Your task to perform on an android device: Open battery settings Image 0: 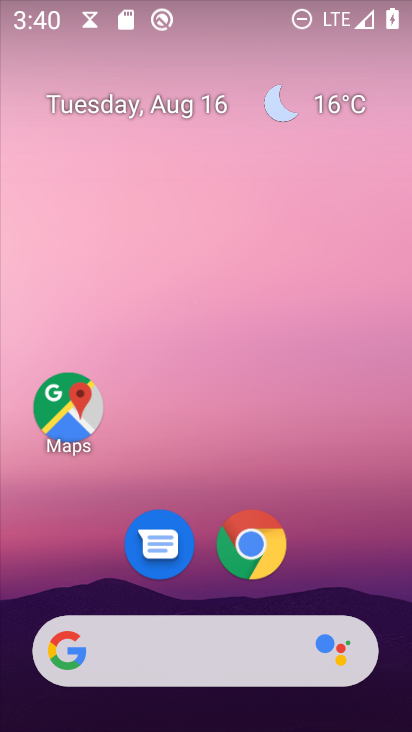
Step 0: drag from (206, 657) to (222, 119)
Your task to perform on an android device: Open battery settings Image 1: 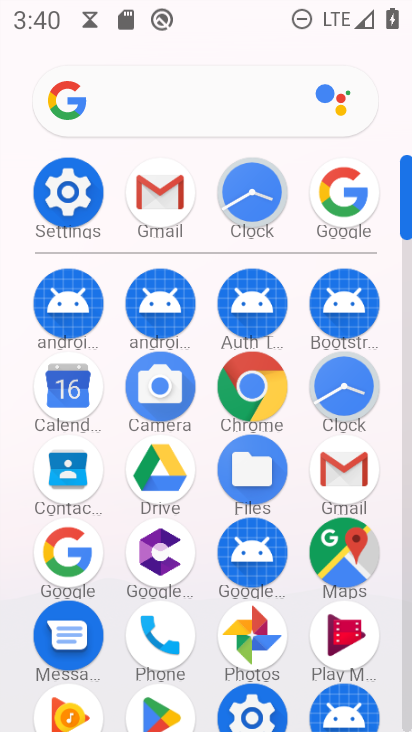
Step 1: click (66, 194)
Your task to perform on an android device: Open battery settings Image 2: 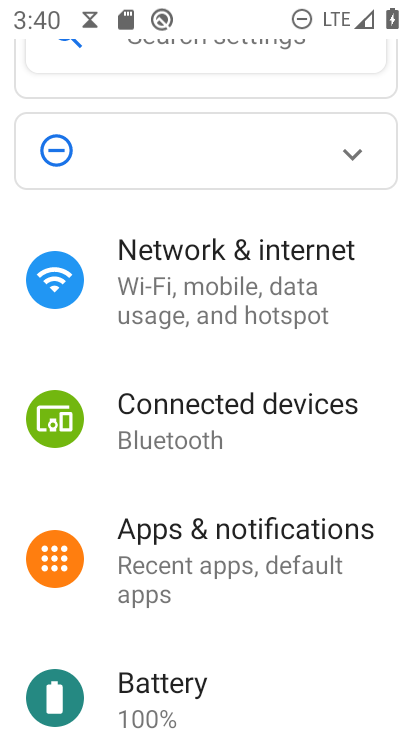
Step 2: drag from (171, 614) to (257, 464)
Your task to perform on an android device: Open battery settings Image 3: 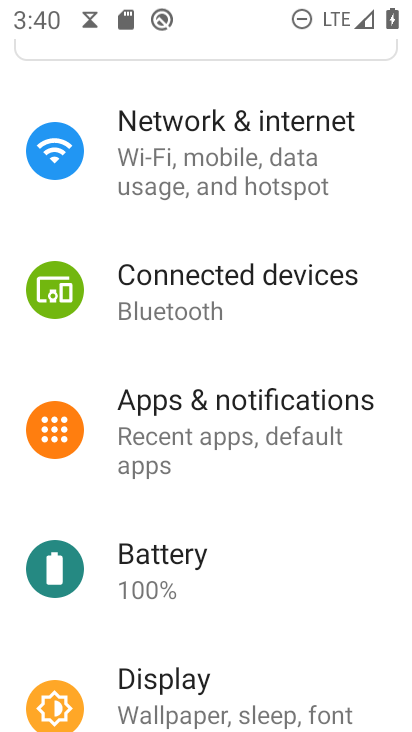
Step 3: click (155, 553)
Your task to perform on an android device: Open battery settings Image 4: 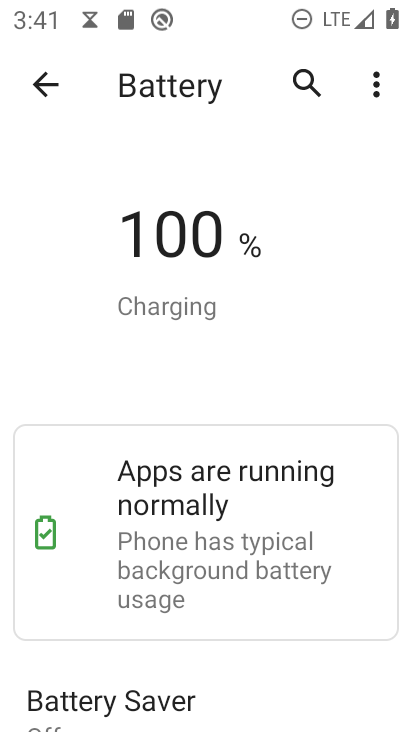
Step 4: task complete